Your task to perform on an android device: Do I have any events this weekend? Image 0: 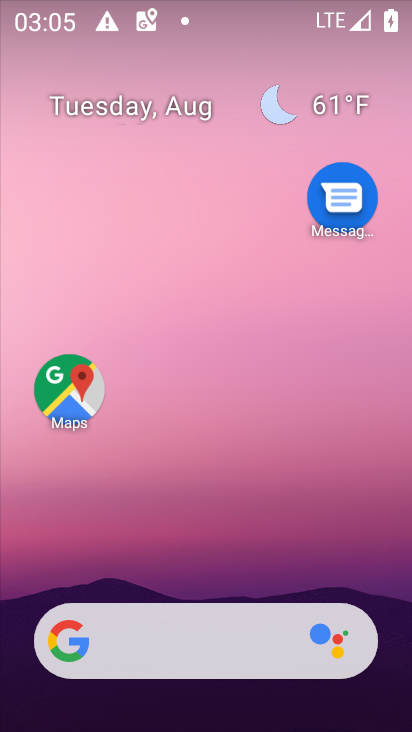
Step 0: drag from (237, 586) to (251, 0)
Your task to perform on an android device: Do I have any events this weekend? Image 1: 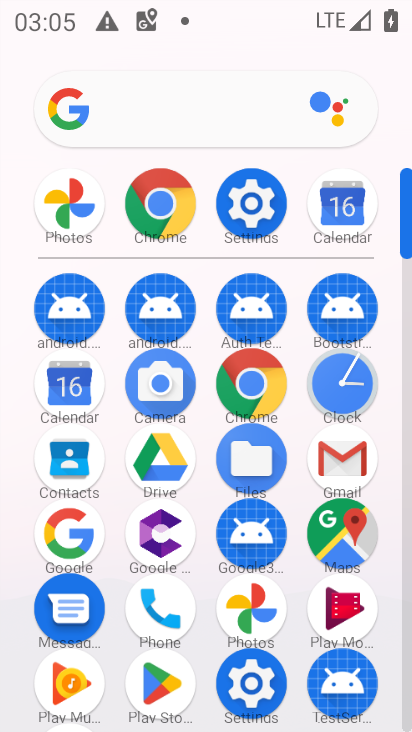
Step 1: click (355, 204)
Your task to perform on an android device: Do I have any events this weekend? Image 2: 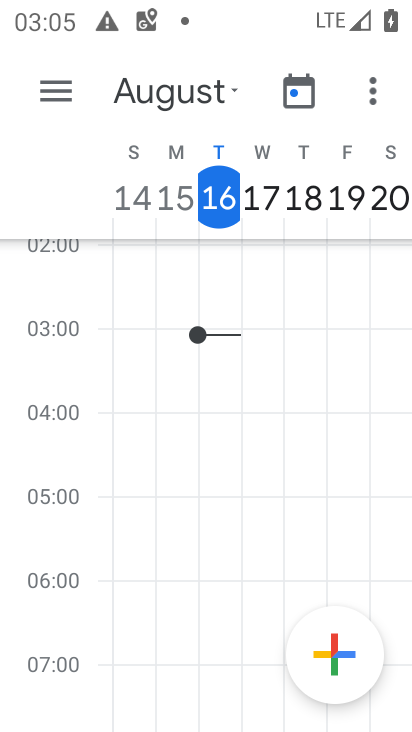
Step 2: task complete